Your task to perform on an android device: Open Chrome and go to the settings page Image 0: 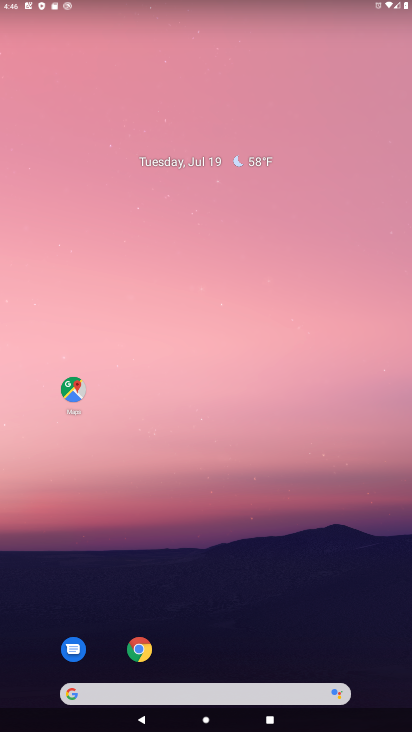
Step 0: click (142, 645)
Your task to perform on an android device: Open Chrome and go to the settings page Image 1: 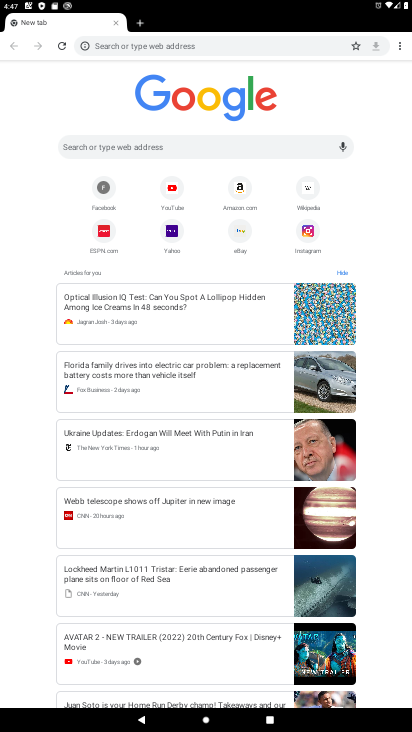
Step 1: click (402, 44)
Your task to perform on an android device: Open Chrome and go to the settings page Image 2: 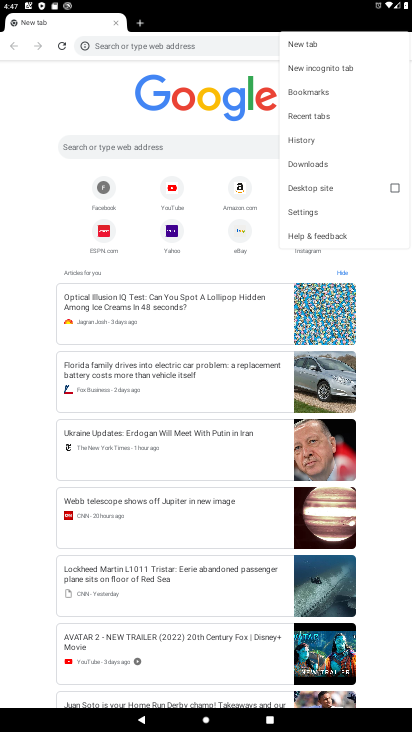
Step 2: click (317, 213)
Your task to perform on an android device: Open Chrome and go to the settings page Image 3: 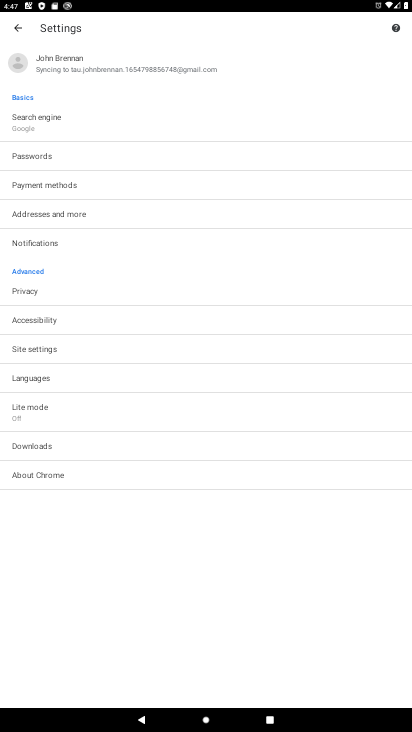
Step 3: task complete